Your task to perform on an android device: Clear the shopping cart on costco.com. Search for "bose soundlink mini" on costco.com, select the first entry, and add it to the cart. Image 0: 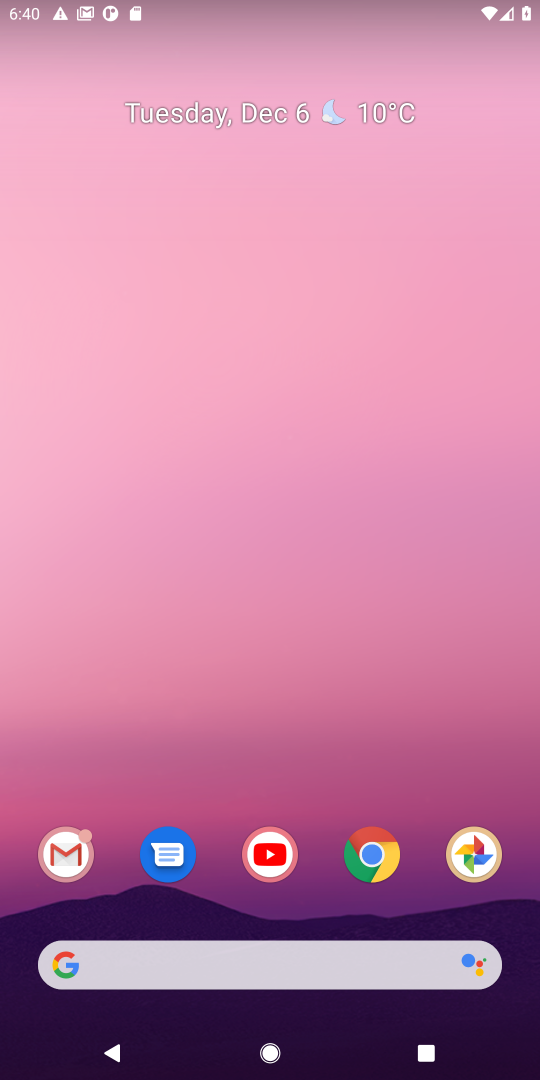
Step 0: click (371, 855)
Your task to perform on an android device: Clear the shopping cart on costco.com. Search for "bose soundlink mini" on costco.com, select the first entry, and add it to the cart. Image 1: 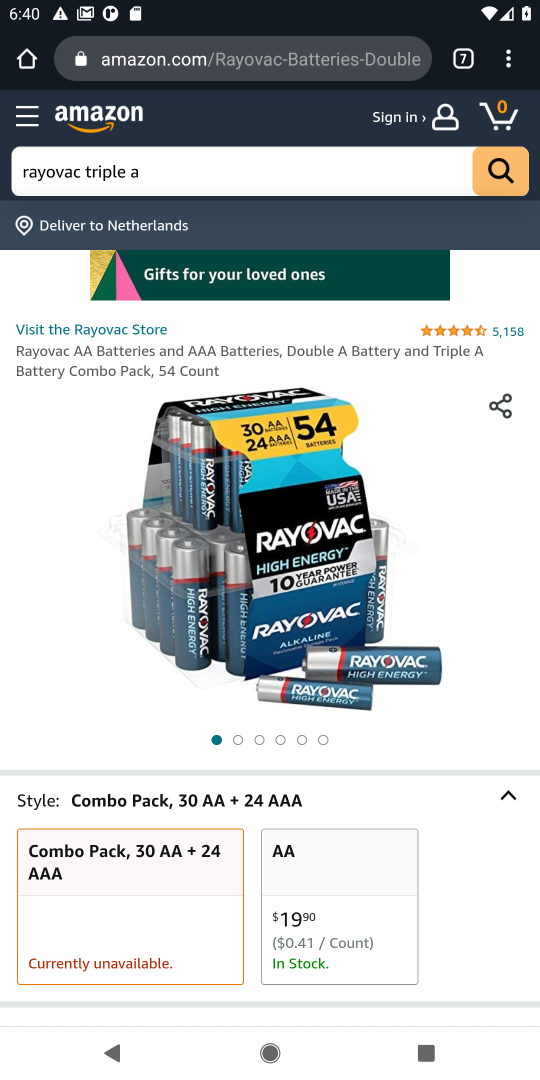
Step 1: click (471, 59)
Your task to perform on an android device: Clear the shopping cart on costco.com. Search for "bose soundlink mini" on costco.com, select the first entry, and add it to the cart. Image 2: 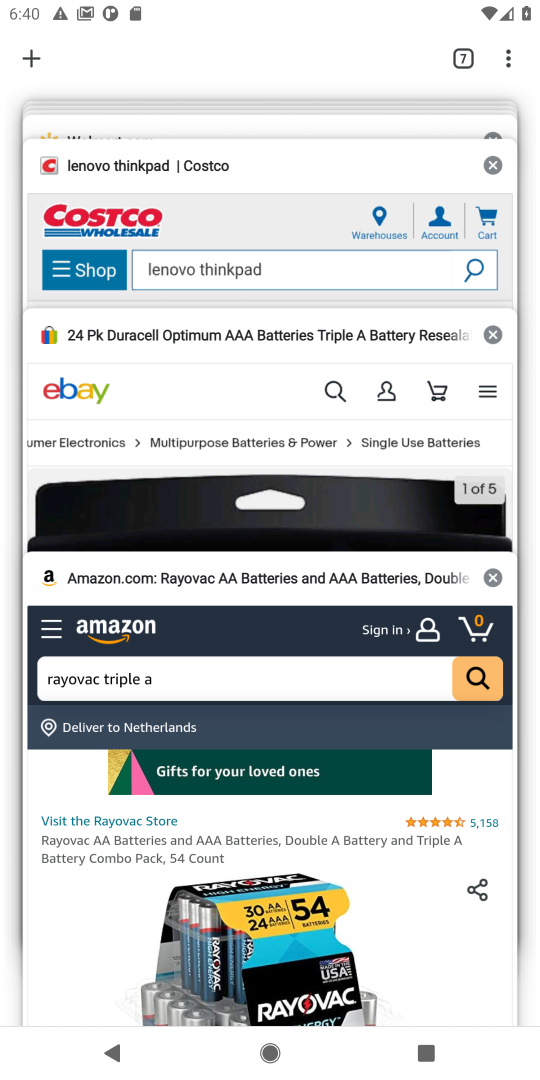
Step 2: click (274, 214)
Your task to perform on an android device: Clear the shopping cart on costco.com. Search for "bose soundlink mini" on costco.com, select the first entry, and add it to the cart. Image 3: 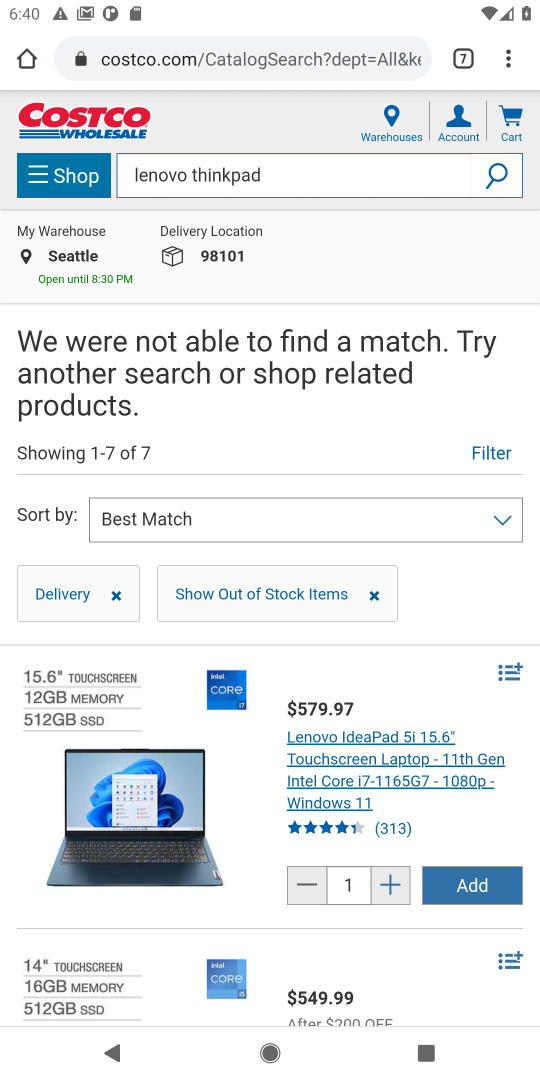
Step 3: click (340, 174)
Your task to perform on an android device: Clear the shopping cart on costco.com. Search for "bose soundlink mini" on costco.com, select the first entry, and add it to the cart. Image 4: 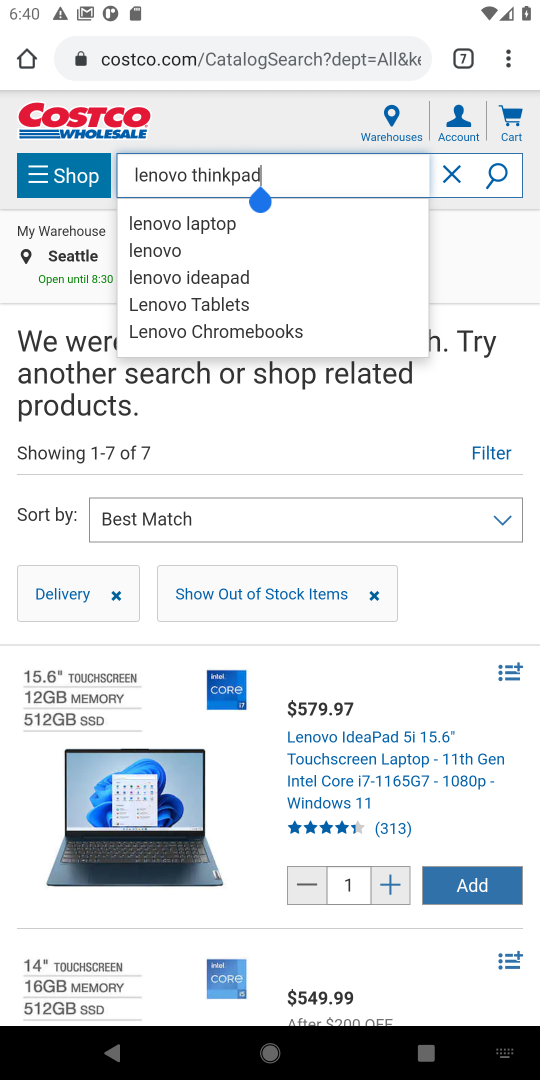
Step 4: click (458, 174)
Your task to perform on an android device: Clear the shopping cart on costco.com. Search for "bose soundlink mini" on costco.com, select the first entry, and add it to the cart. Image 5: 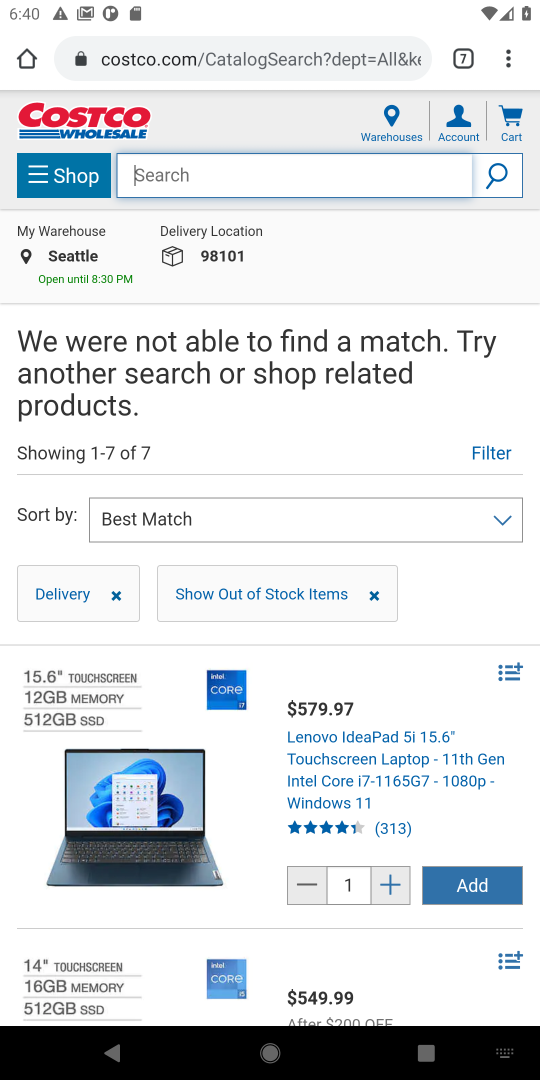
Step 5: type "bose soundlink mini"
Your task to perform on an android device: Clear the shopping cart on costco.com. Search for "bose soundlink mini" on costco.com, select the first entry, and add it to the cart. Image 6: 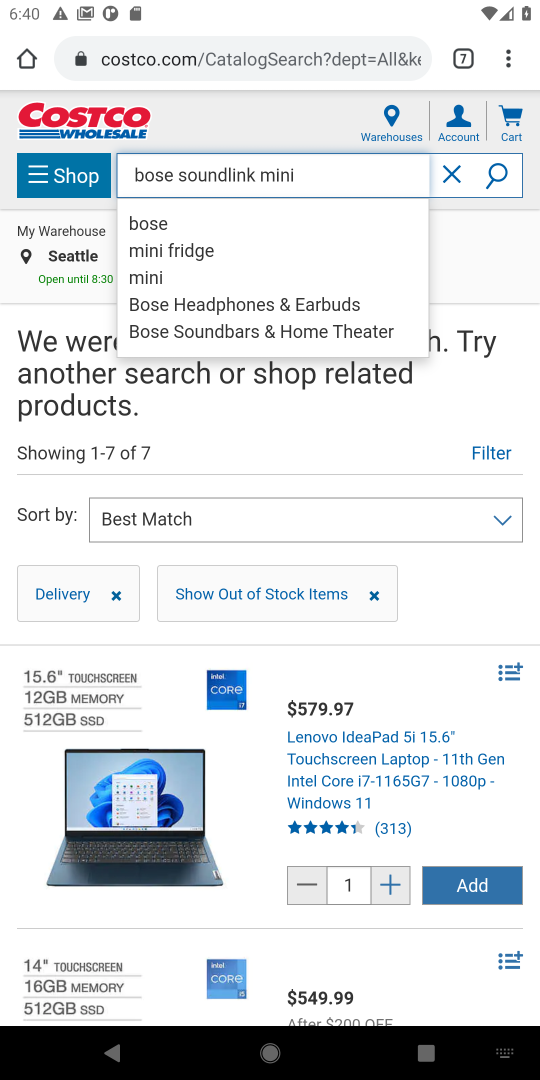
Step 6: click (501, 171)
Your task to perform on an android device: Clear the shopping cart on costco.com. Search for "bose soundlink mini" on costco.com, select the first entry, and add it to the cart. Image 7: 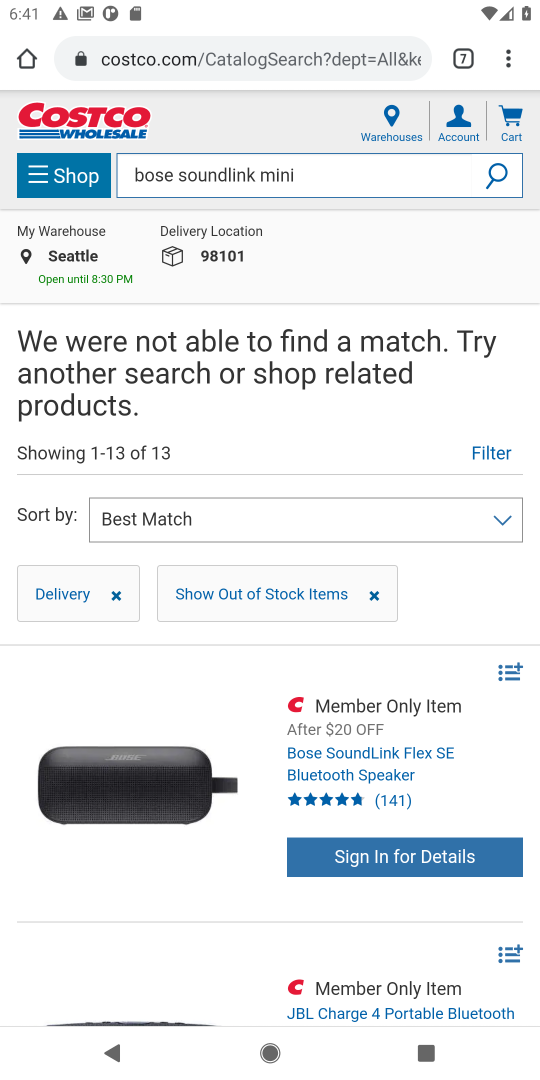
Step 7: task complete